Your task to perform on an android device: change notification settings in the gmail app Image 0: 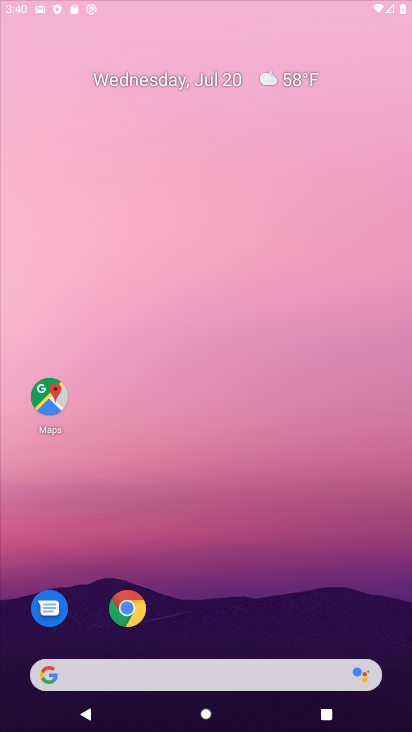
Step 0: drag from (173, 625) to (177, 165)
Your task to perform on an android device: change notification settings in the gmail app Image 1: 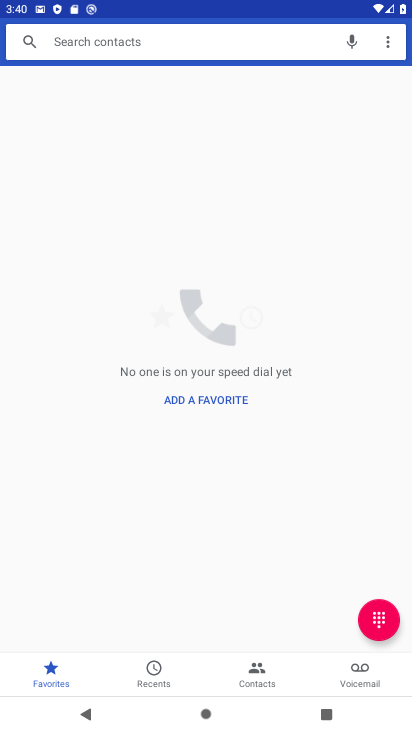
Step 1: press home button
Your task to perform on an android device: change notification settings in the gmail app Image 2: 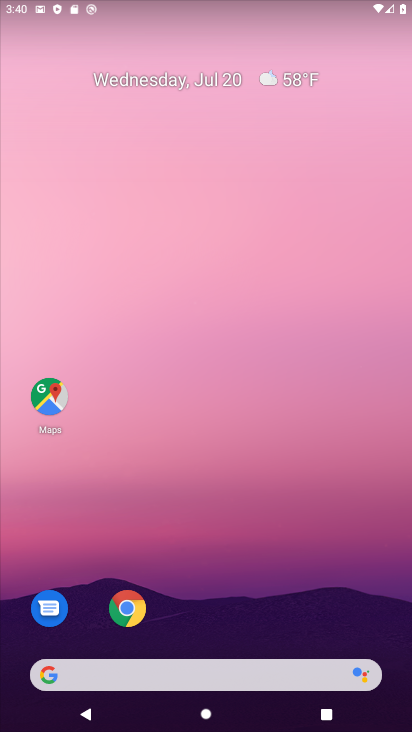
Step 2: drag from (192, 614) to (205, 201)
Your task to perform on an android device: change notification settings in the gmail app Image 3: 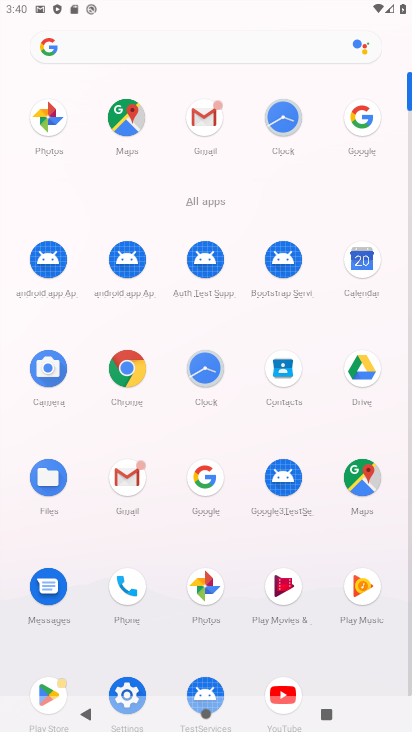
Step 3: click (125, 489)
Your task to perform on an android device: change notification settings in the gmail app Image 4: 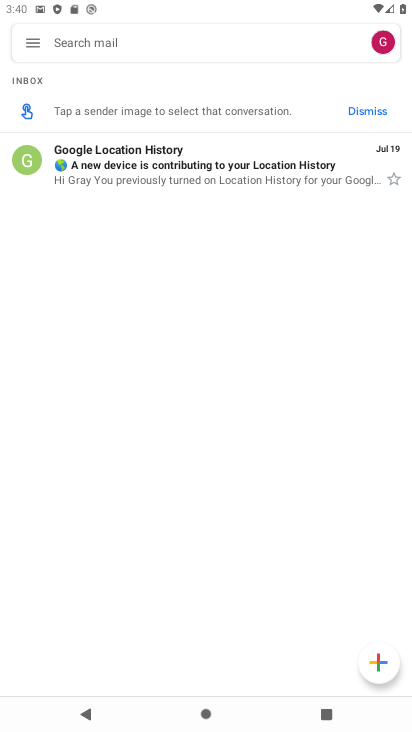
Step 4: click (388, 44)
Your task to perform on an android device: change notification settings in the gmail app Image 5: 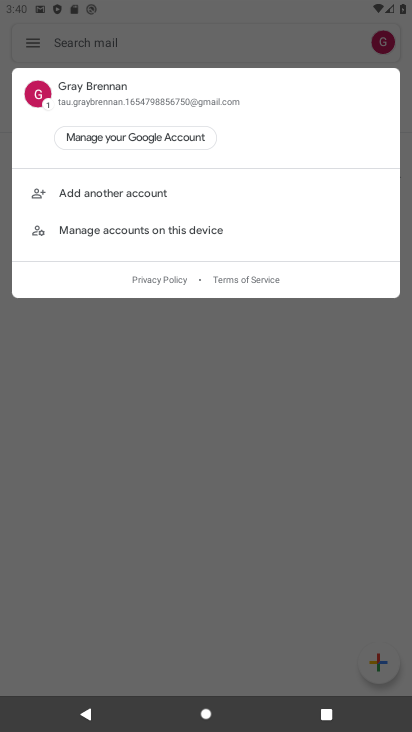
Step 5: click (120, 333)
Your task to perform on an android device: change notification settings in the gmail app Image 6: 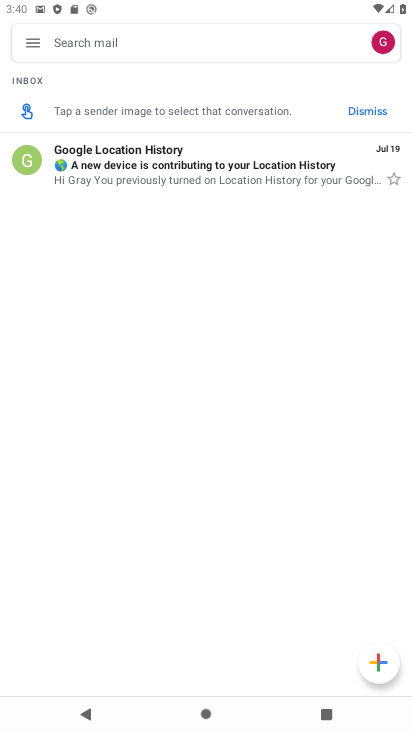
Step 6: click (45, 59)
Your task to perform on an android device: change notification settings in the gmail app Image 7: 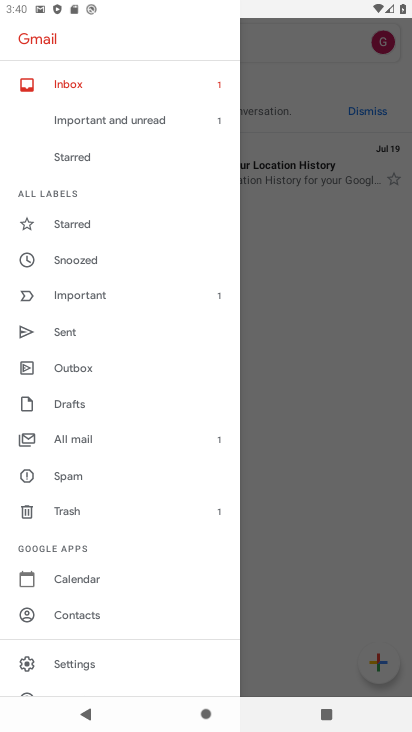
Step 7: press back button
Your task to perform on an android device: change notification settings in the gmail app Image 8: 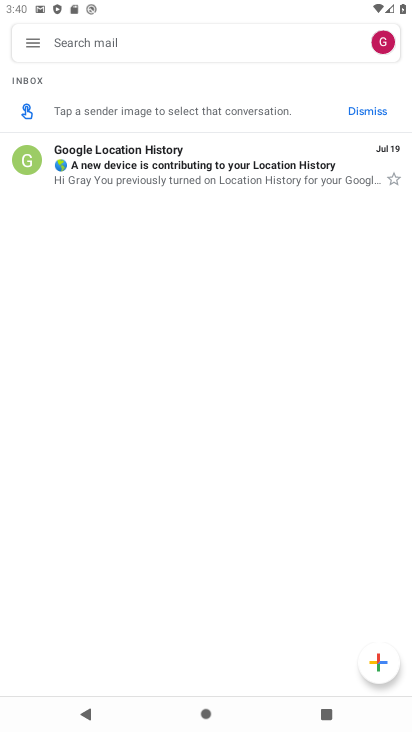
Step 8: click (36, 42)
Your task to perform on an android device: change notification settings in the gmail app Image 9: 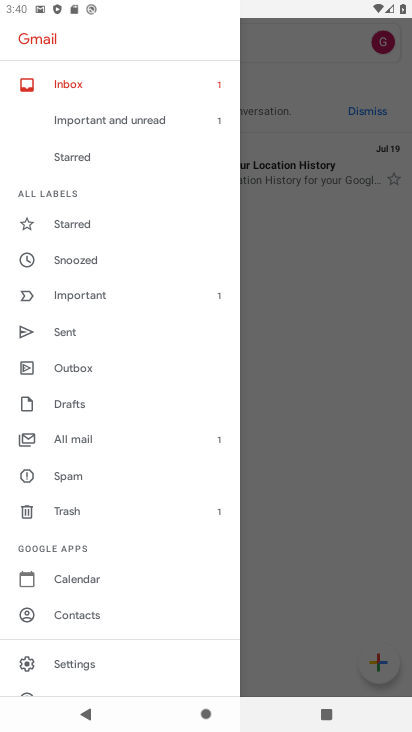
Step 9: click (62, 663)
Your task to perform on an android device: change notification settings in the gmail app Image 10: 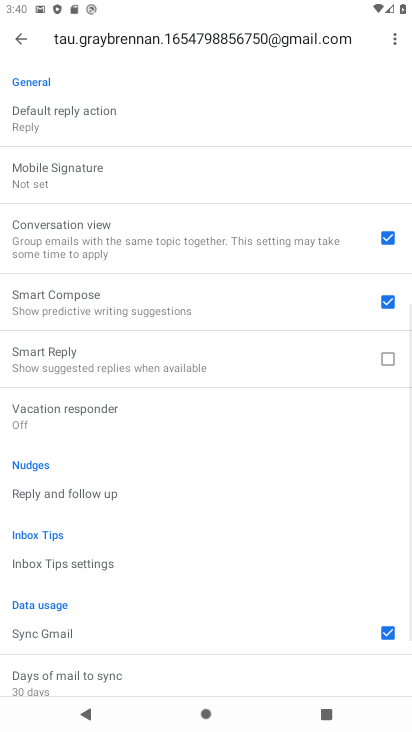
Step 10: click (227, 292)
Your task to perform on an android device: change notification settings in the gmail app Image 11: 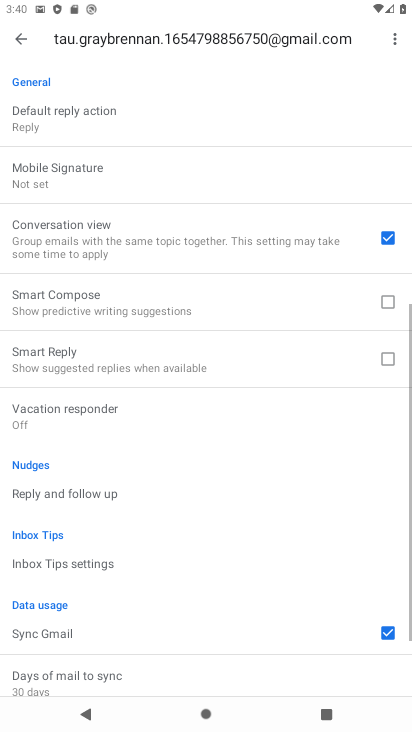
Step 11: click (227, 292)
Your task to perform on an android device: change notification settings in the gmail app Image 12: 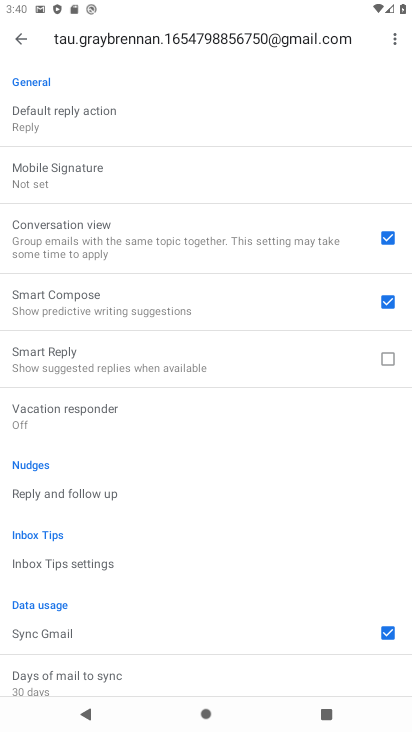
Step 12: drag from (204, 149) to (248, 692)
Your task to perform on an android device: change notification settings in the gmail app Image 13: 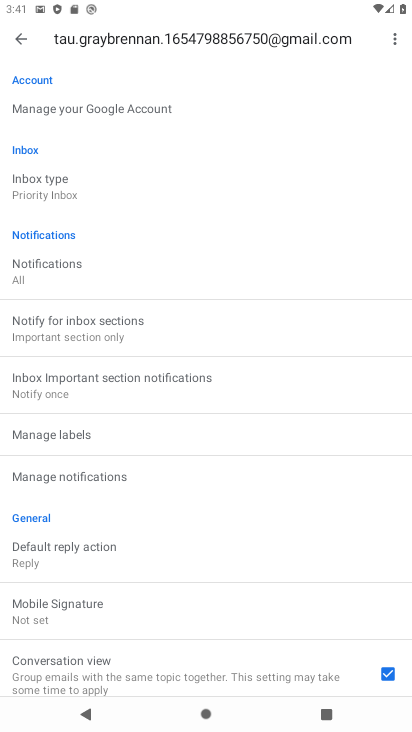
Step 13: click (84, 477)
Your task to perform on an android device: change notification settings in the gmail app Image 14: 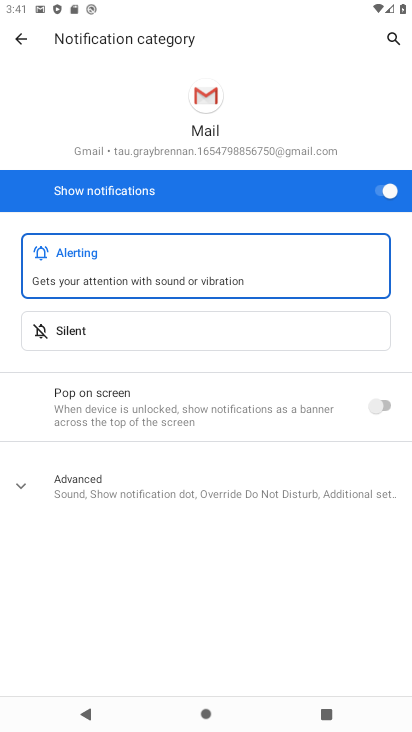
Step 14: click (84, 477)
Your task to perform on an android device: change notification settings in the gmail app Image 15: 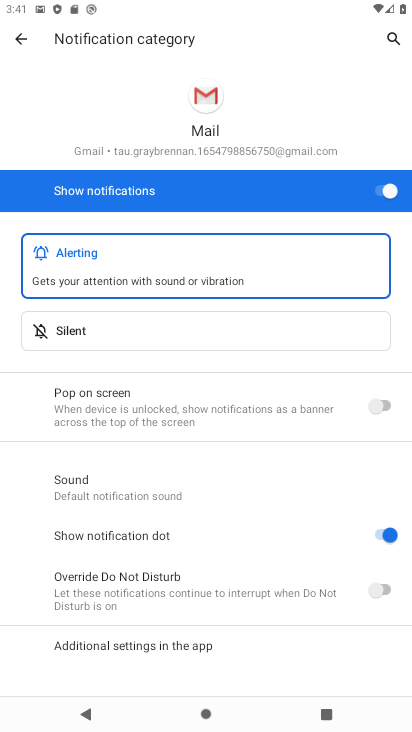
Step 15: click (380, 190)
Your task to perform on an android device: change notification settings in the gmail app Image 16: 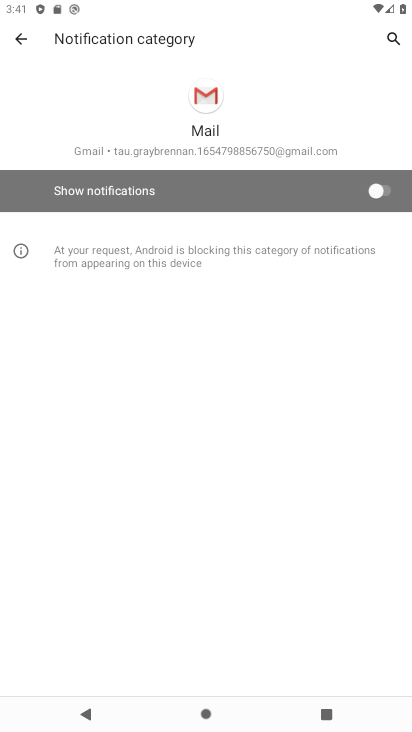
Step 16: task complete